Your task to perform on an android device: Go to eBay Image 0: 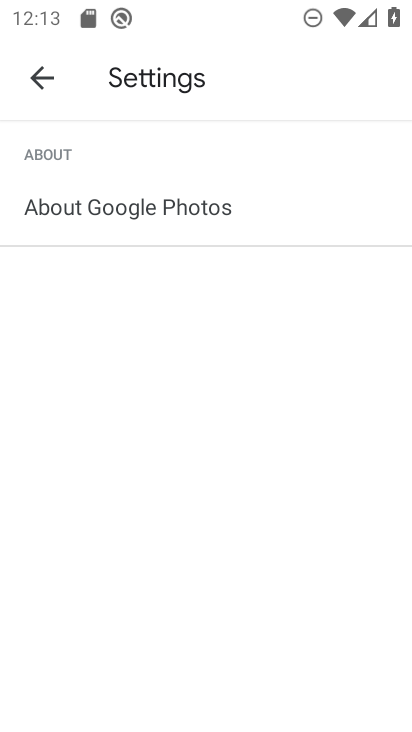
Step 0: press home button
Your task to perform on an android device: Go to eBay Image 1: 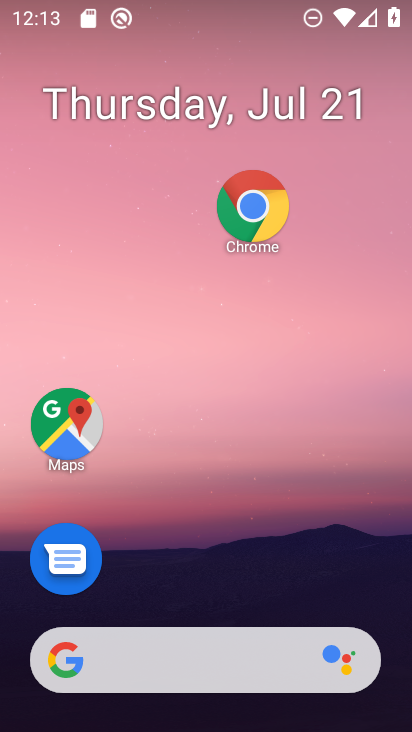
Step 1: drag from (174, 604) to (236, 137)
Your task to perform on an android device: Go to eBay Image 2: 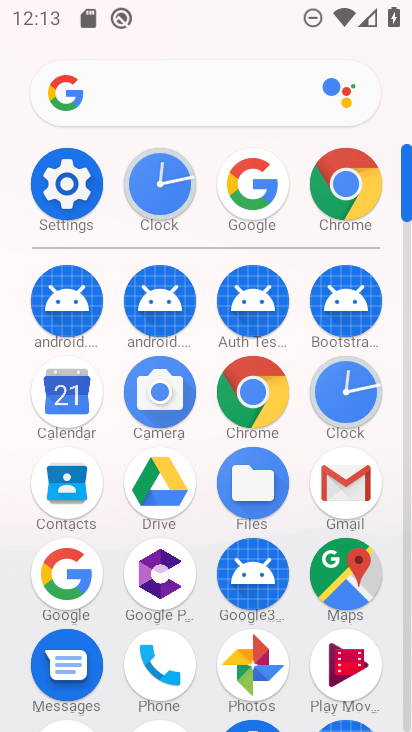
Step 2: click (336, 209)
Your task to perform on an android device: Go to eBay Image 3: 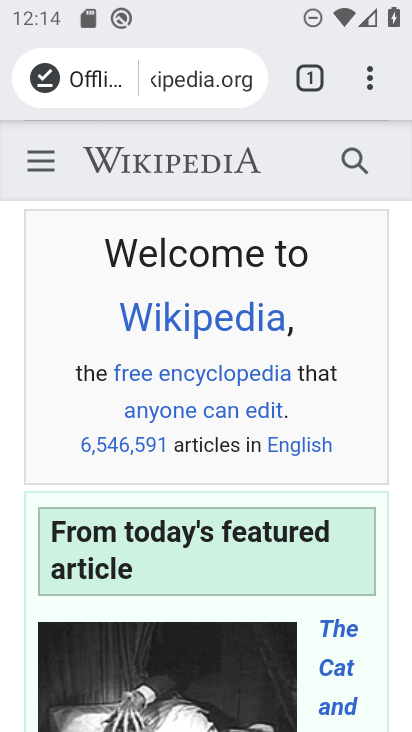
Step 3: click (215, 83)
Your task to perform on an android device: Go to eBay Image 4: 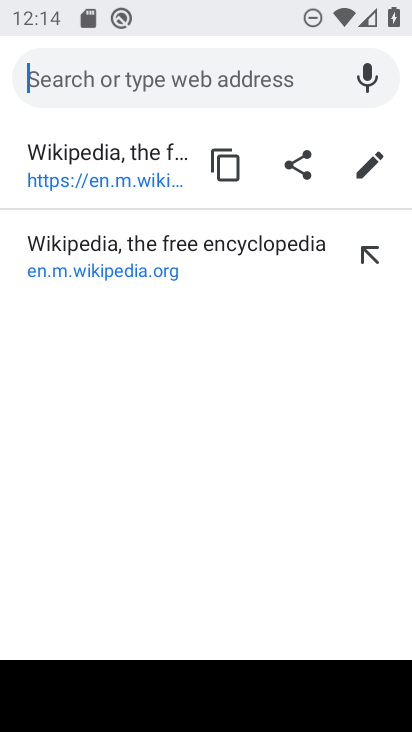
Step 4: type "ebay"
Your task to perform on an android device: Go to eBay Image 5: 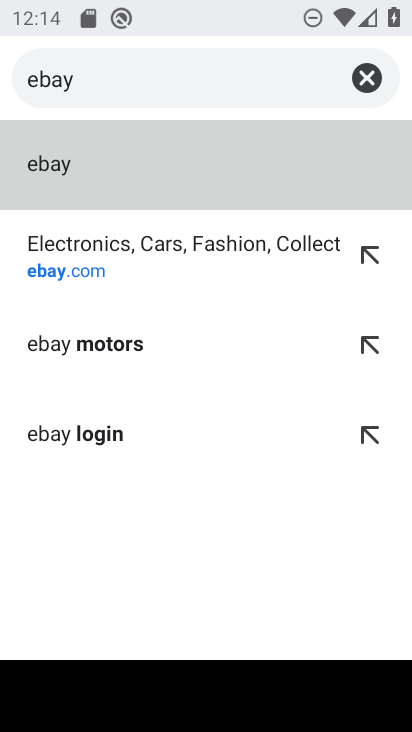
Step 5: click (238, 255)
Your task to perform on an android device: Go to eBay Image 6: 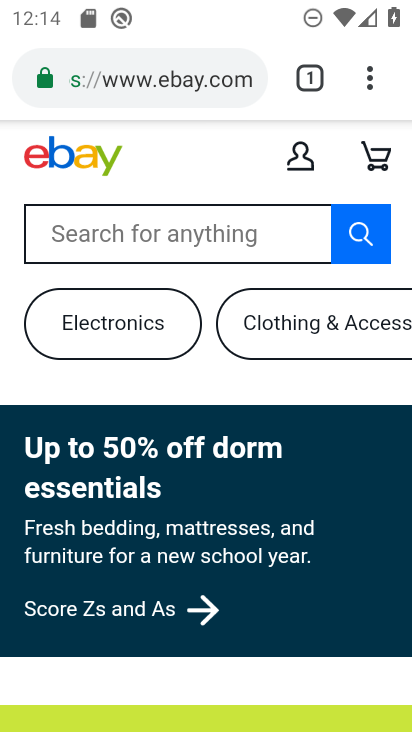
Step 6: task complete